Your task to perform on an android device: toggle sleep mode Image 0: 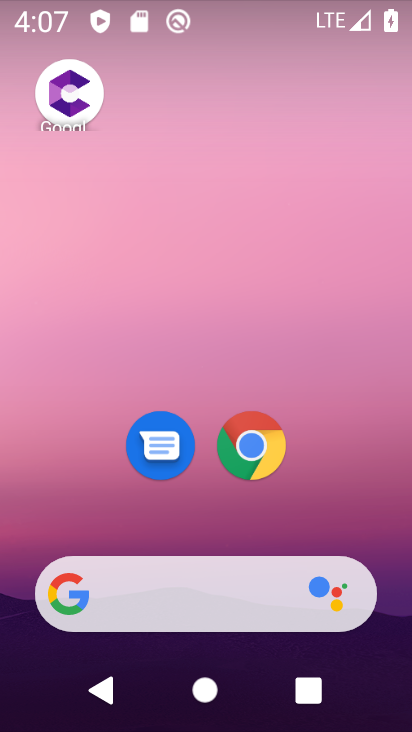
Step 0: drag from (266, 537) to (210, 8)
Your task to perform on an android device: toggle sleep mode Image 1: 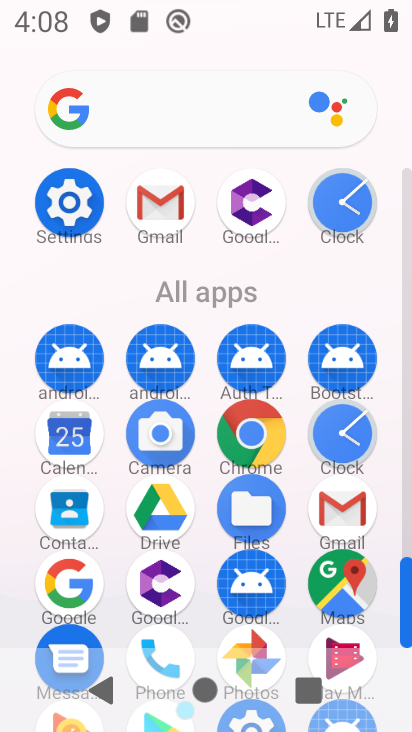
Step 1: drag from (200, 622) to (194, 167)
Your task to perform on an android device: toggle sleep mode Image 2: 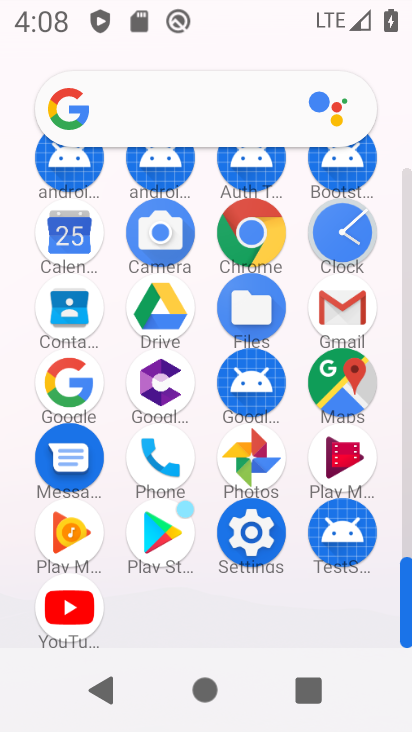
Step 2: click (255, 532)
Your task to perform on an android device: toggle sleep mode Image 3: 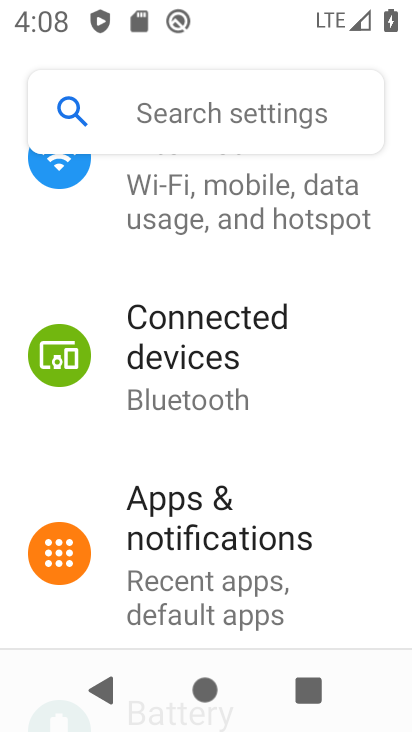
Step 3: drag from (274, 361) to (291, 567)
Your task to perform on an android device: toggle sleep mode Image 4: 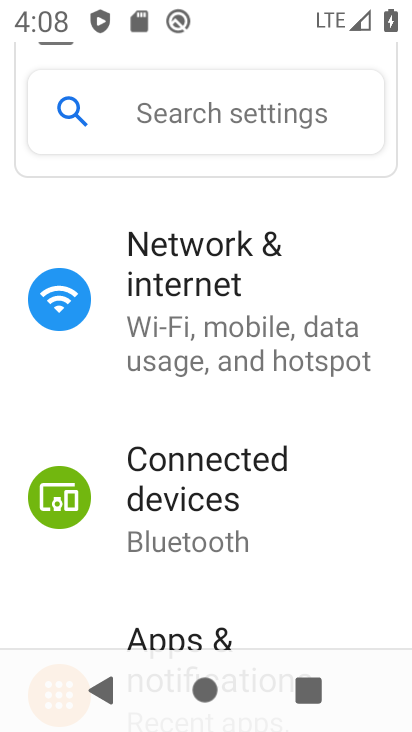
Step 4: drag from (291, 567) to (299, 66)
Your task to perform on an android device: toggle sleep mode Image 5: 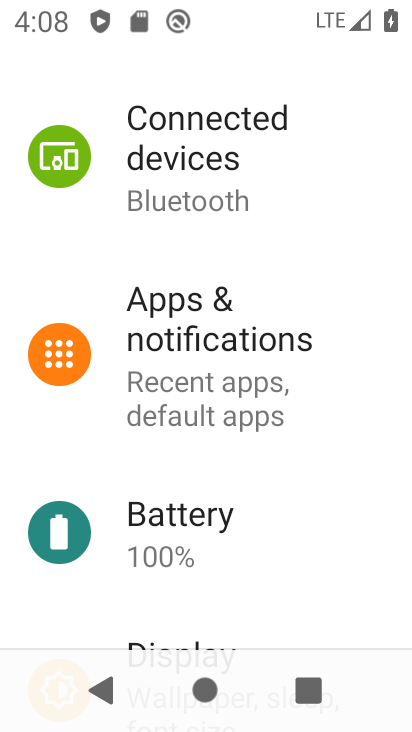
Step 5: drag from (271, 574) to (254, 215)
Your task to perform on an android device: toggle sleep mode Image 6: 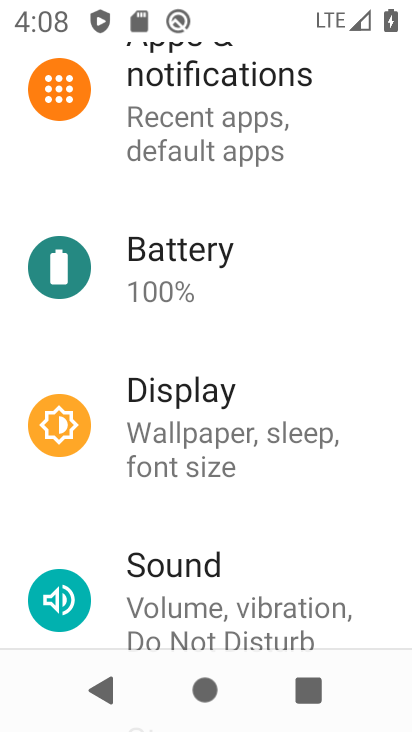
Step 6: click (231, 418)
Your task to perform on an android device: toggle sleep mode Image 7: 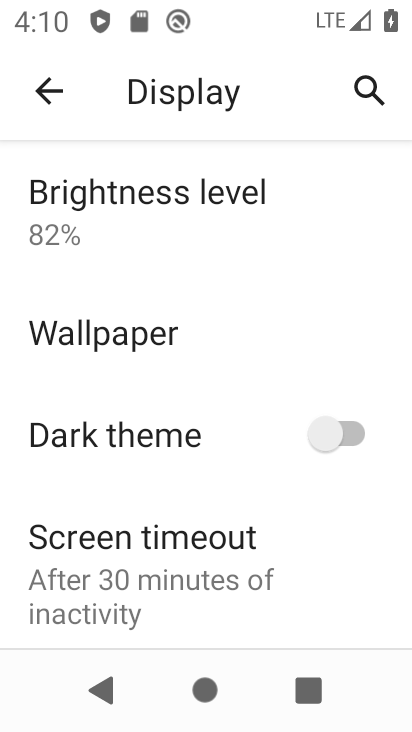
Step 7: task complete